Your task to perform on an android device: open chrome privacy settings Image 0: 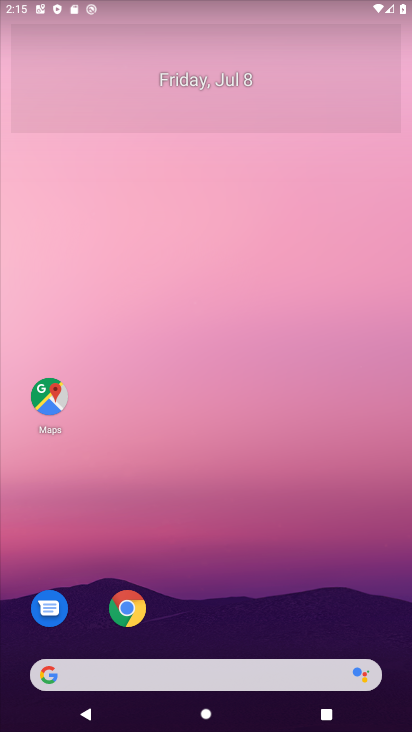
Step 0: drag from (336, 688) to (345, 122)
Your task to perform on an android device: open chrome privacy settings Image 1: 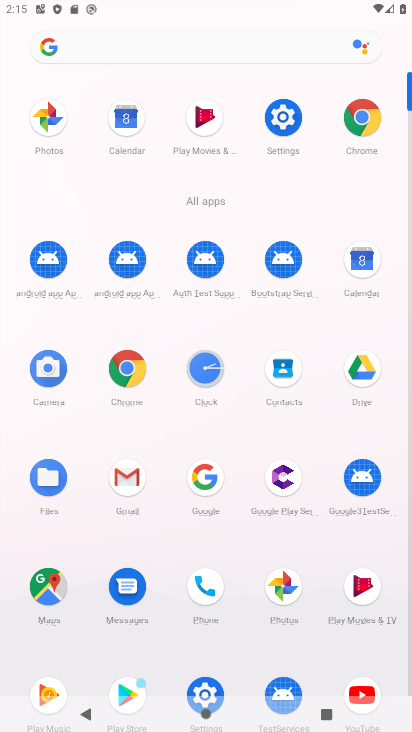
Step 1: click (112, 363)
Your task to perform on an android device: open chrome privacy settings Image 2: 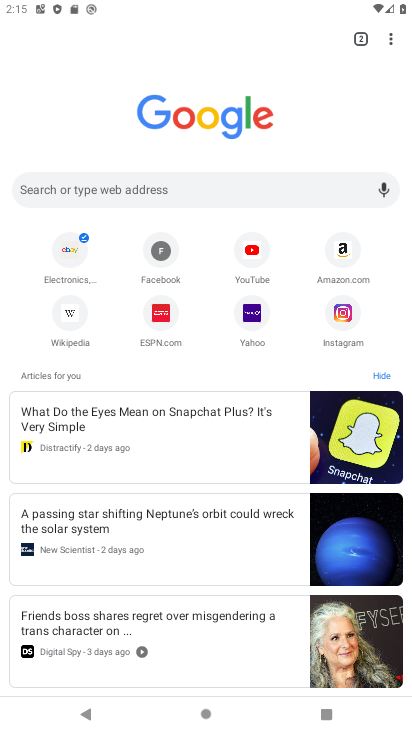
Step 2: drag from (393, 43) to (251, 328)
Your task to perform on an android device: open chrome privacy settings Image 3: 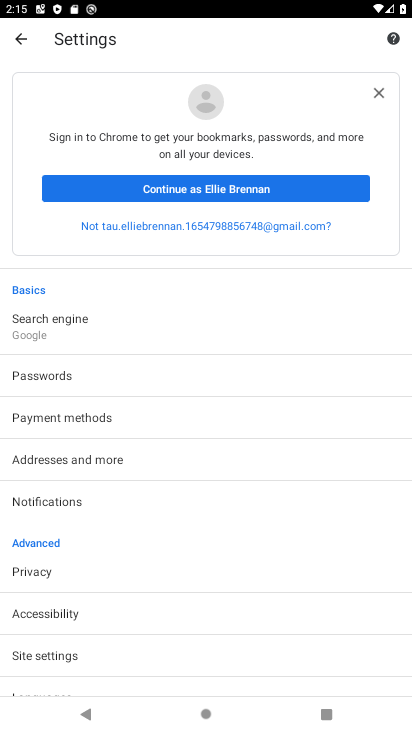
Step 3: click (96, 585)
Your task to perform on an android device: open chrome privacy settings Image 4: 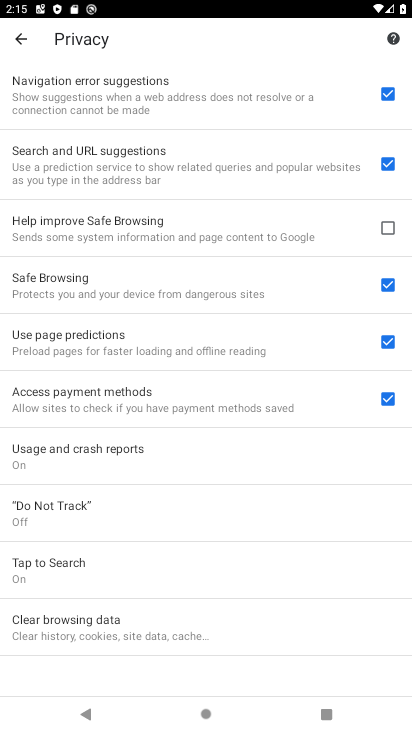
Step 4: task complete